Your task to perform on an android device: add a label to a message in the gmail app Image 0: 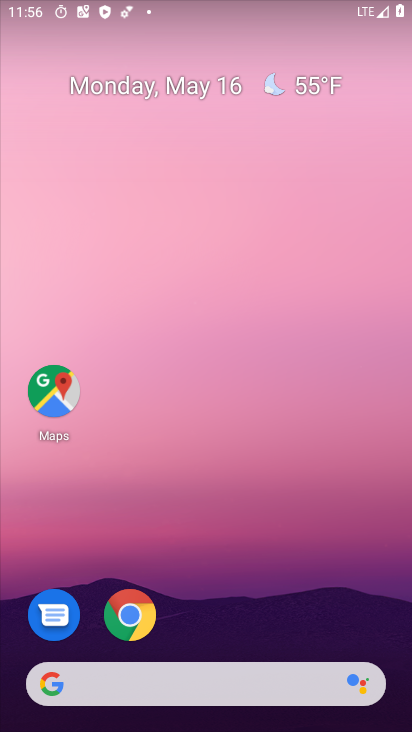
Step 0: drag from (309, 633) to (295, 207)
Your task to perform on an android device: add a label to a message in the gmail app Image 1: 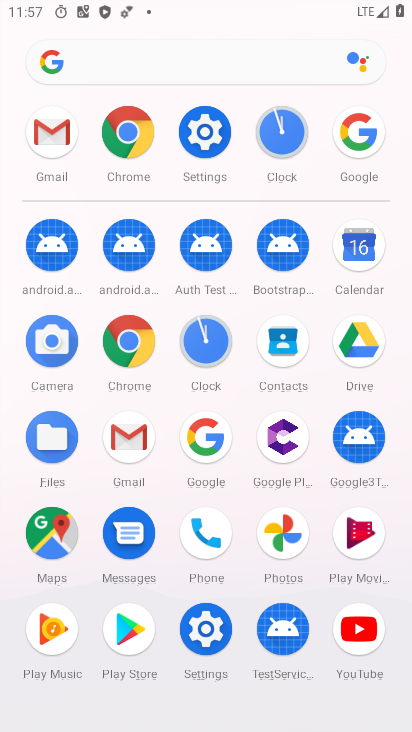
Step 1: click (62, 143)
Your task to perform on an android device: add a label to a message in the gmail app Image 2: 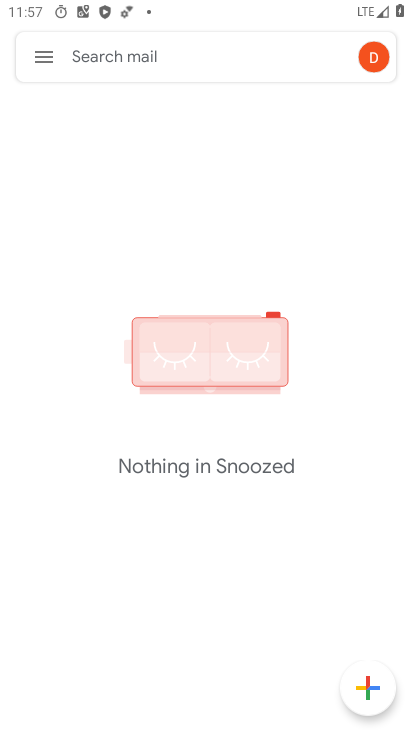
Step 2: click (54, 55)
Your task to perform on an android device: add a label to a message in the gmail app Image 3: 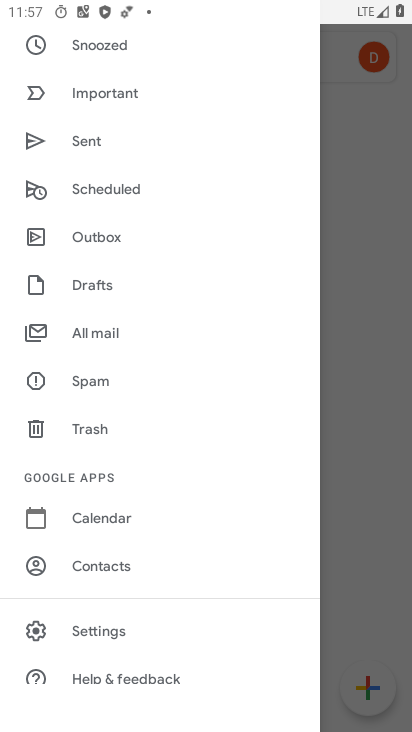
Step 3: task complete